Your task to perform on an android device: toggle location history Image 0: 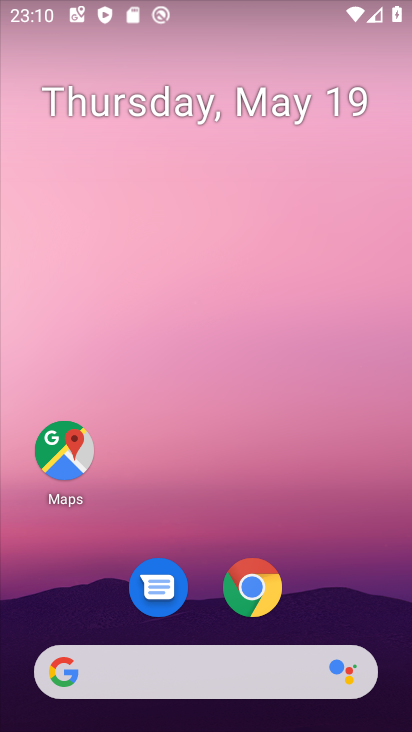
Step 0: press home button
Your task to perform on an android device: toggle location history Image 1: 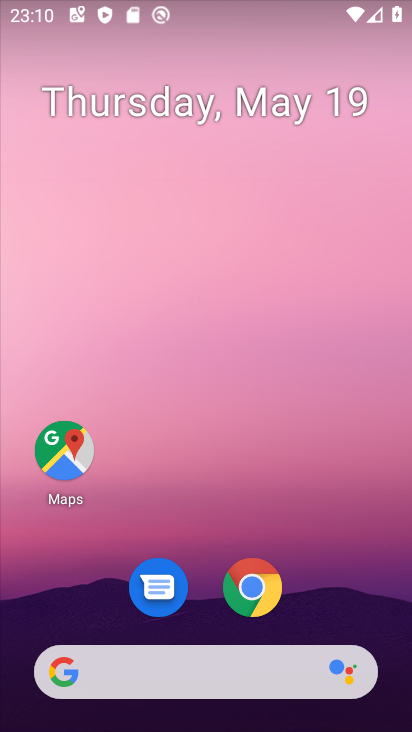
Step 1: drag from (263, 709) to (255, 260)
Your task to perform on an android device: toggle location history Image 2: 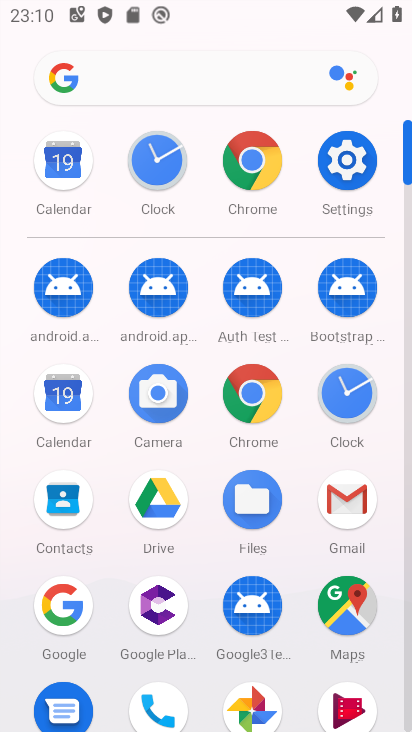
Step 2: click (329, 156)
Your task to perform on an android device: toggle location history Image 3: 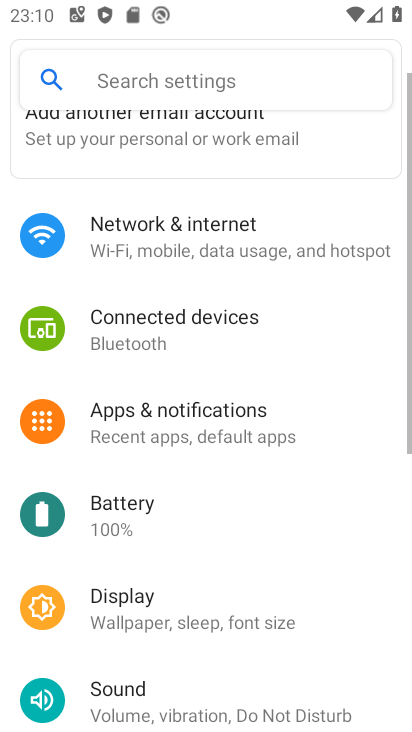
Step 3: click (173, 81)
Your task to perform on an android device: toggle location history Image 4: 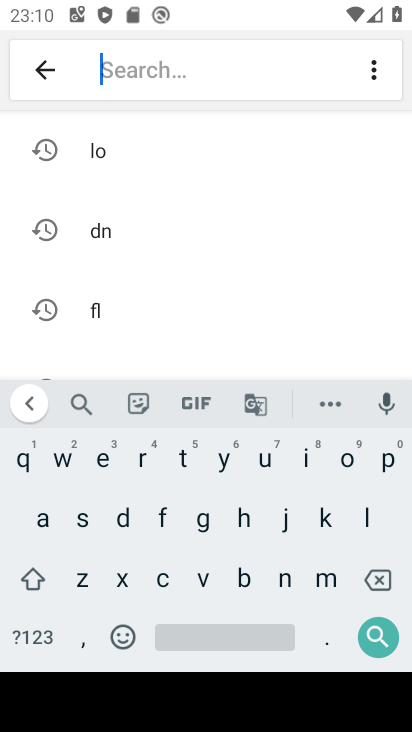
Step 4: click (112, 156)
Your task to perform on an android device: toggle location history Image 5: 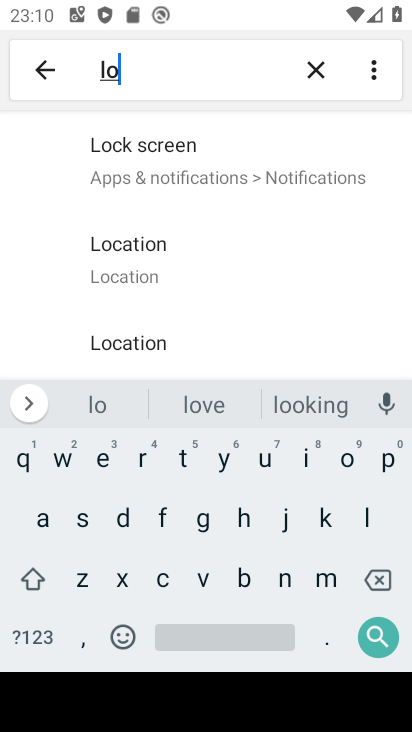
Step 5: click (183, 274)
Your task to perform on an android device: toggle location history Image 6: 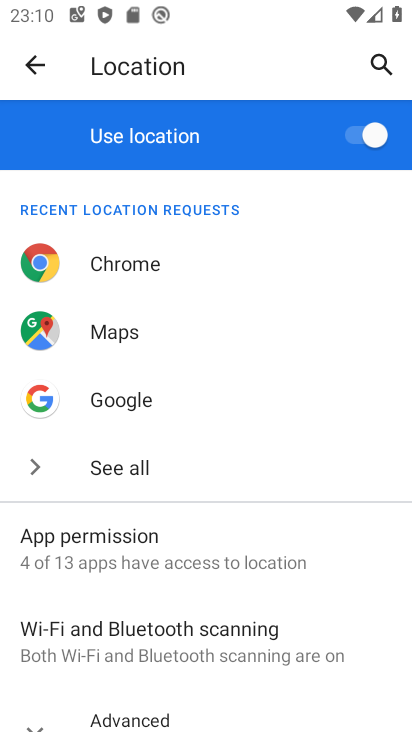
Step 6: drag from (87, 653) to (85, 425)
Your task to perform on an android device: toggle location history Image 7: 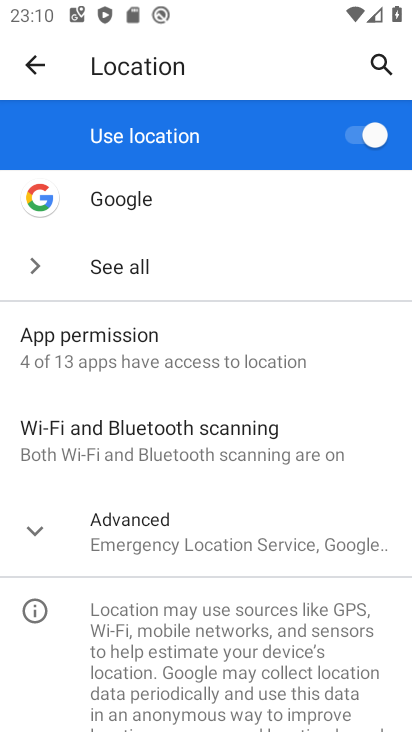
Step 7: click (29, 544)
Your task to perform on an android device: toggle location history Image 8: 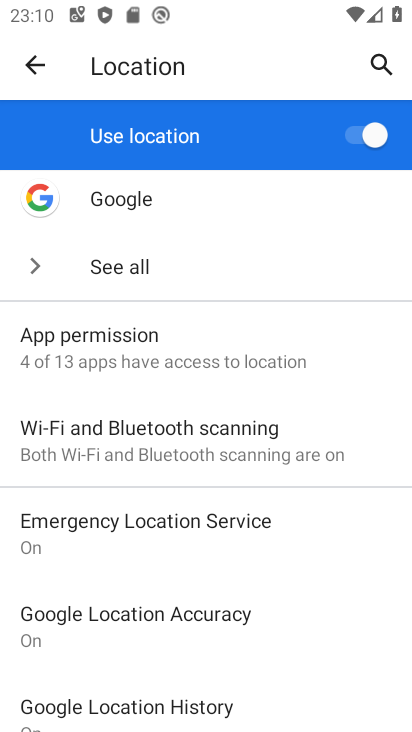
Step 8: click (89, 699)
Your task to perform on an android device: toggle location history Image 9: 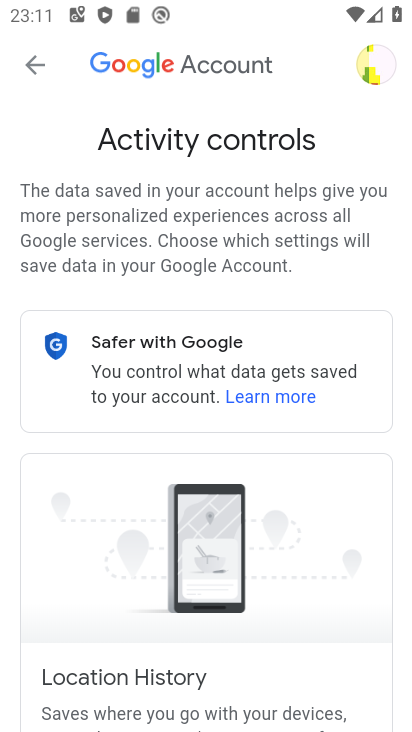
Step 9: task complete